Your task to perform on an android device: Search for "logitech g pro" on ebay.com, select the first entry, and add it to the cart. Image 0: 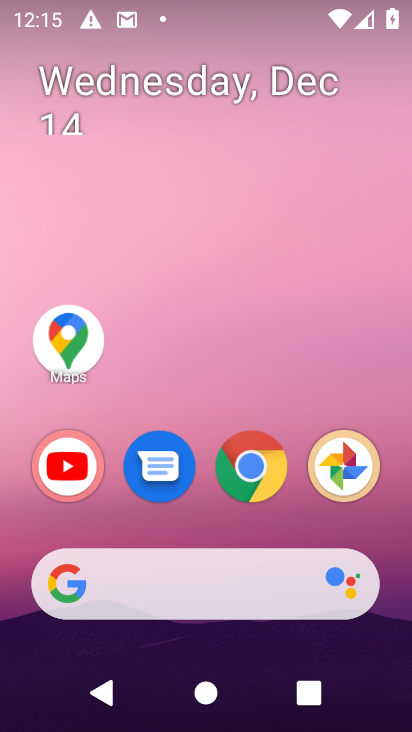
Step 0: click (191, 615)
Your task to perform on an android device: Search for "logitech g pro" on ebay.com, select the first entry, and add it to the cart. Image 1: 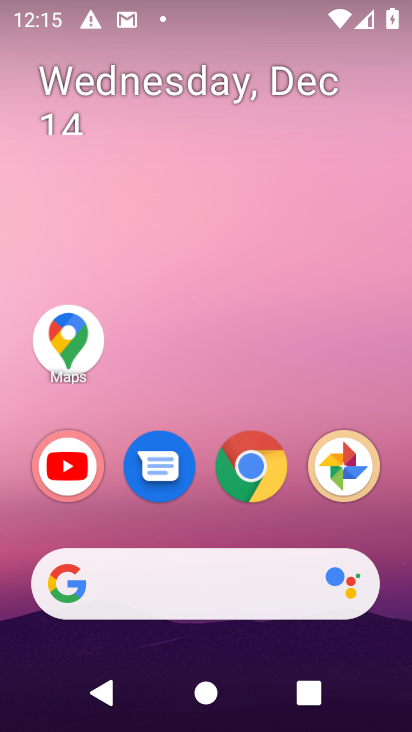
Step 1: click (197, 607)
Your task to perform on an android device: Search for "logitech g pro" on ebay.com, select the first entry, and add it to the cart. Image 2: 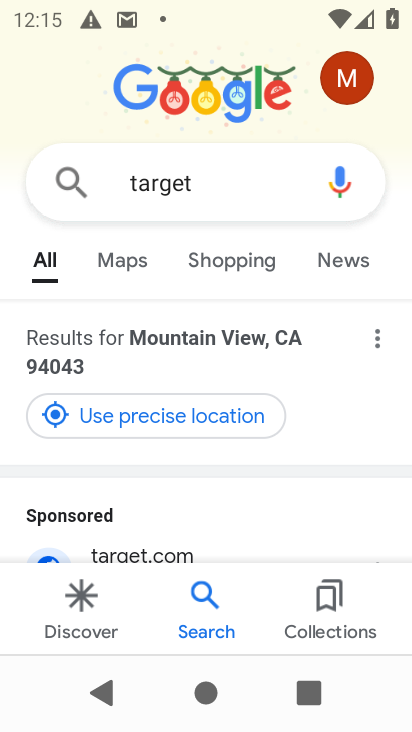
Step 2: click (257, 181)
Your task to perform on an android device: Search for "logitech g pro" on ebay.com, select the first entry, and add it to the cart. Image 3: 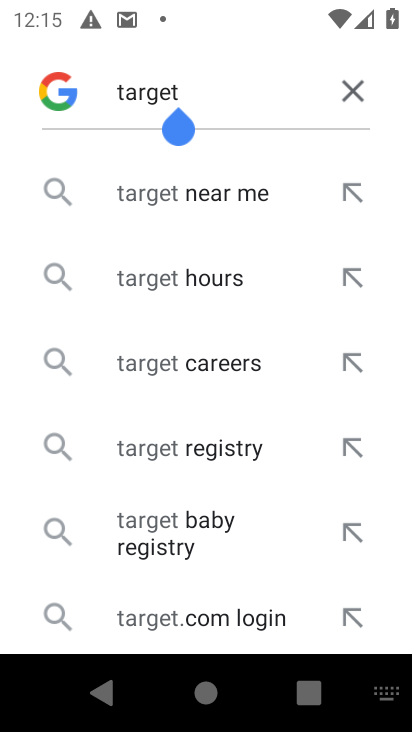
Step 3: click (343, 88)
Your task to perform on an android device: Search for "logitech g pro" on ebay.com, select the first entry, and add it to the cart. Image 4: 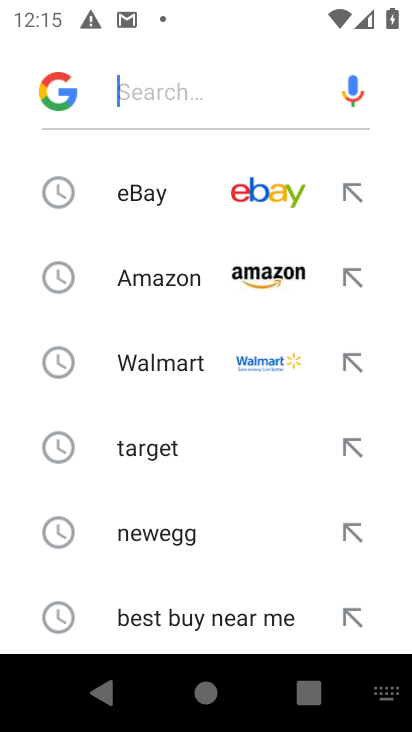
Step 4: type " ebay.com"
Your task to perform on an android device: Search for "logitech g pro" on ebay.com, select the first entry, and add it to the cart. Image 5: 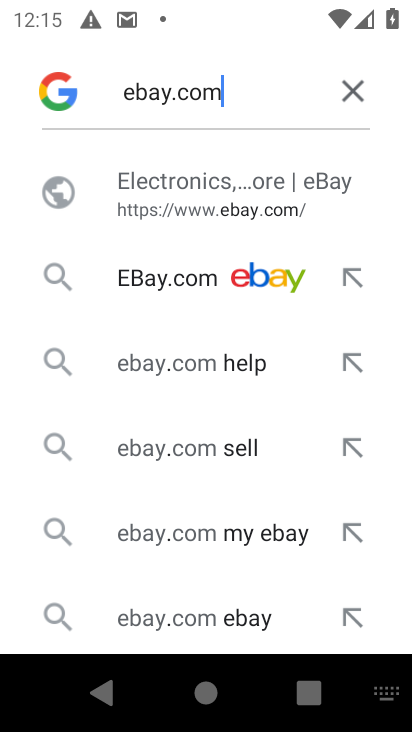
Step 5: click (237, 275)
Your task to perform on an android device: Search for "logitech g pro" on ebay.com, select the first entry, and add it to the cart. Image 6: 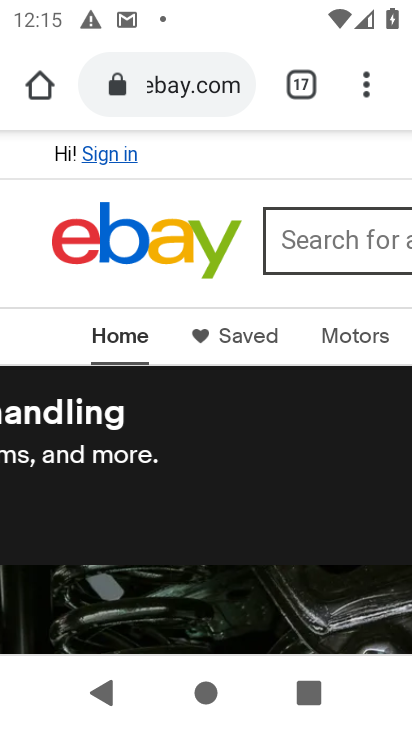
Step 6: drag from (226, 544) to (226, 271)
Your task to perform on an android device: Search for "logitech g pro" on ebay.com, select the first entry, and add it to the cart. Image 7: 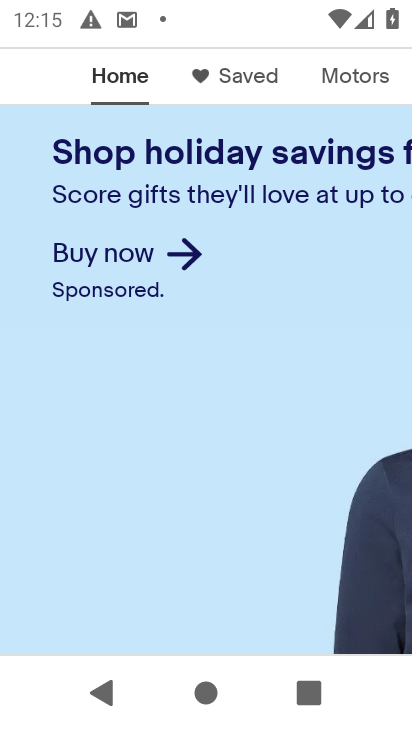
Step 7: drag from (217, 418) to (259, 634)
Your task to perform on an android device: Search for "logitech g pro" on ebay.com, select the first entry, and add it to the cart. Image 8: 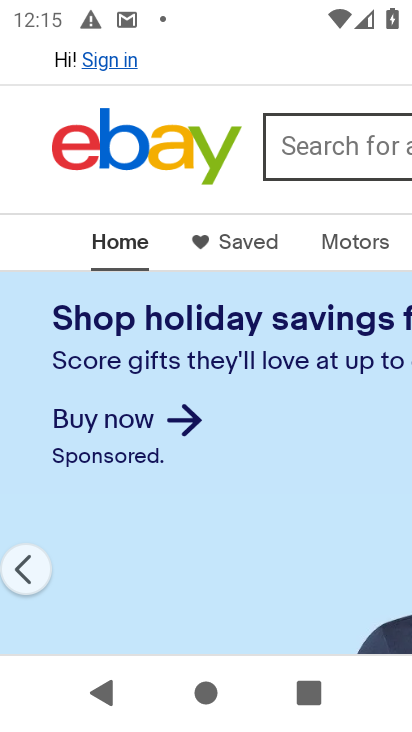
Step 8: click (353, 141)
Your task to perform on an android device: Search for "logitech g pro" on ebay.com, select the first entry, and add it to the cart. Image 9: 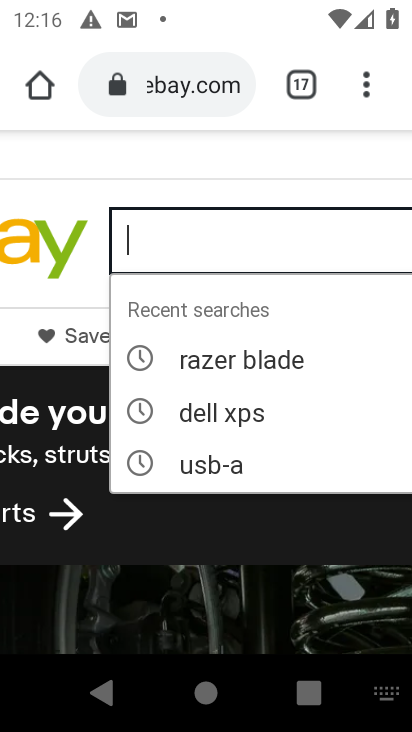
Step 9: click (207, 239)
Your task to perform on an android device: Search for "logitech g pro" on ebay.com, select the first entry, and add it to the cart. Image 10: 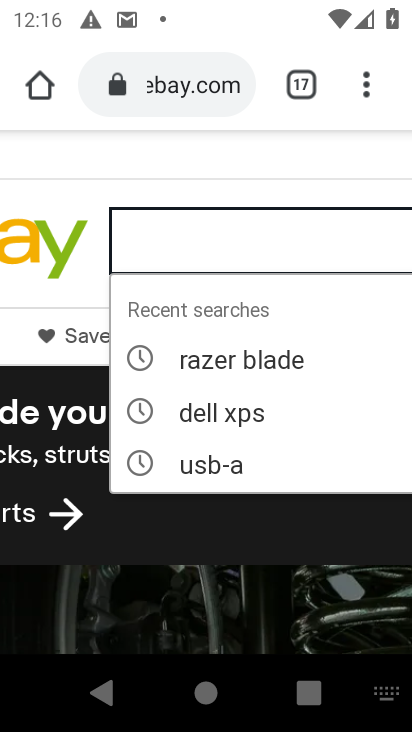
Step 10: click (207, 239)
Your task to perform on an android device: Search for "logitech g pro" on ebay.com, select the first entry, and add it to the cart. Image 11: 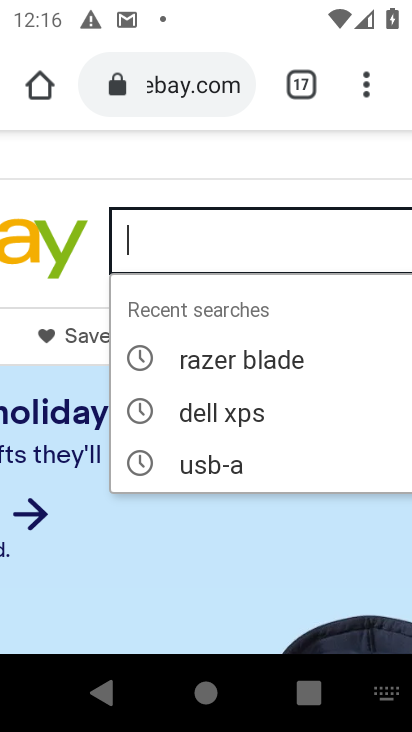
Step 11: type "logitech g pro"
Your task to perform on an android device: Search for "logitech g pro" on ebay.com, select the first entry, and add it to the cart. Image 12: 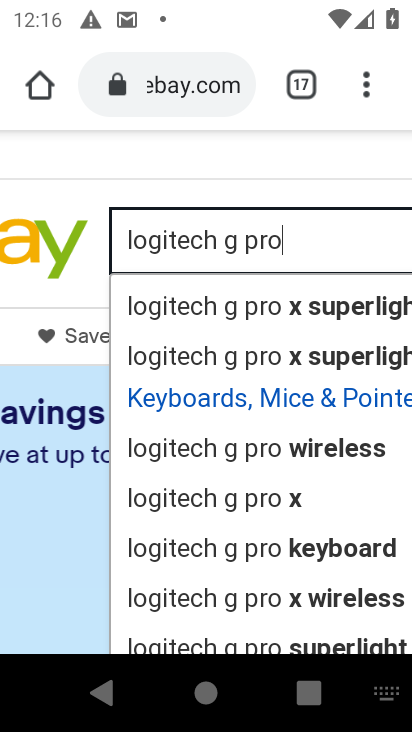
Step 12: drag from (109, 170) to (4, 170)
Your task to perform on an android device: Search for "logitech g pro" on ebay.com, select the first entry, and add it to the cart. Image 13: 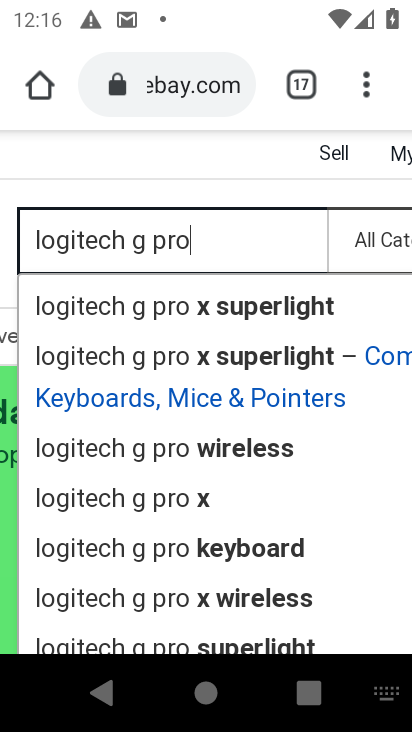
Step 13: drag from (287, 181) to (128, 216)
Your task to perform on an android device: Search for "logitech g pro" on ebay.com, select the first entry, and add it to the cart. Image 14: 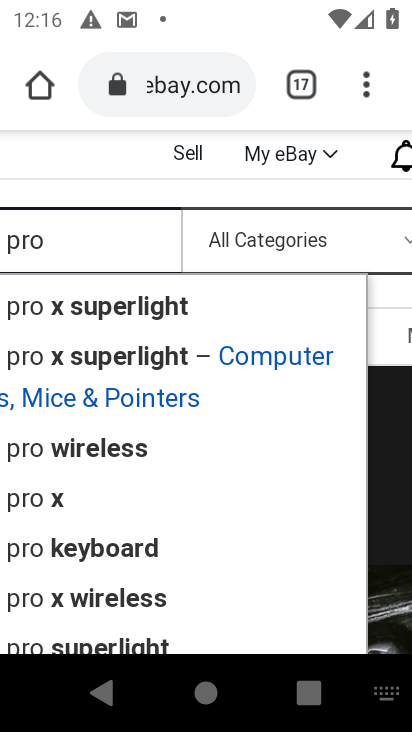
Step 14: drag from (349, 189) to (130, 194)
Your task to perform on an android device: Search for "logitech g pro" on ebay.com, select the first entry, and add it to the cart. Image 15: 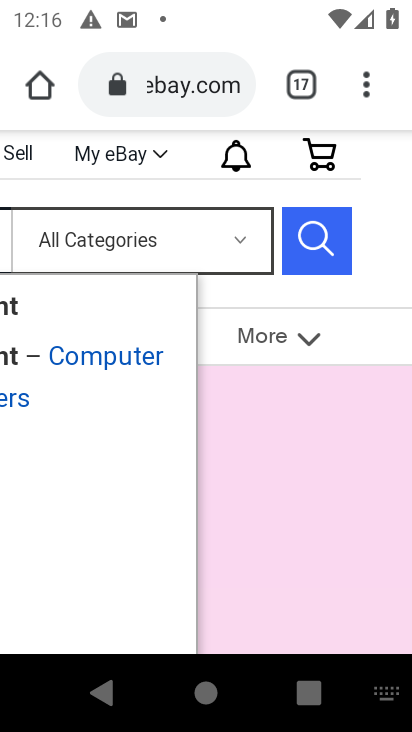
Step 15: click (314, 235)
Your task to perform on an android device: Search for "logitech g pro" on ebay.com, select the first entry, and add it to the cart. Image 16: 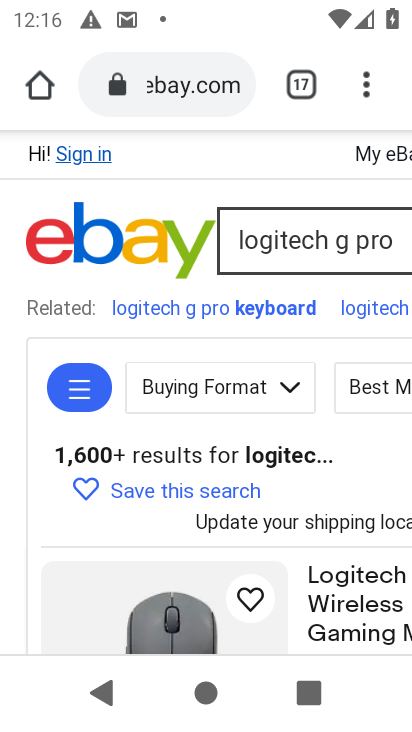
Step 16: drag from (313, 521) to (275, 270)
Your task to perform on an android device: Search for "logitech g pro" on ebay.com, select the first entry, and add it to the cart. Image 17: 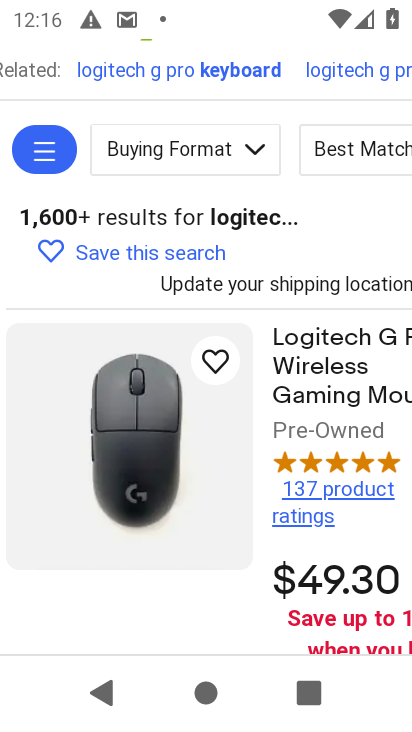
Step 17: drag from (362, 535) to (346, 377)
Your task to perform on an android device: Search for "logitech g pro" on ebay.com, select the first entry, and add it to the cart. Image 18: 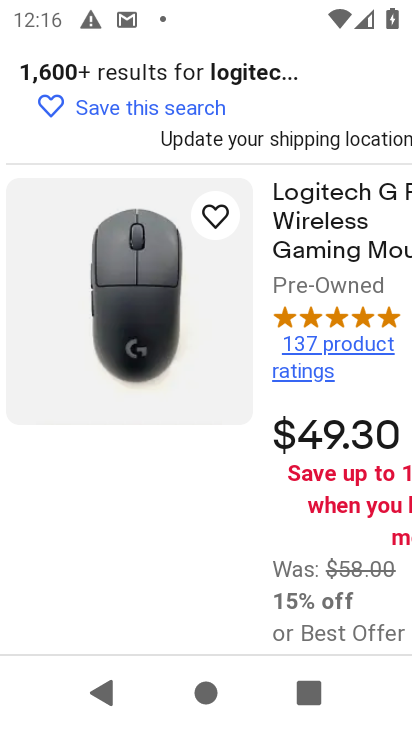
Step 18: drag from (276, 528) to (161, 529)
Your task to perform on an android device: Search for "logitech g pro" on ebay.com, select the first entry, and add it to the cart. Image 19: 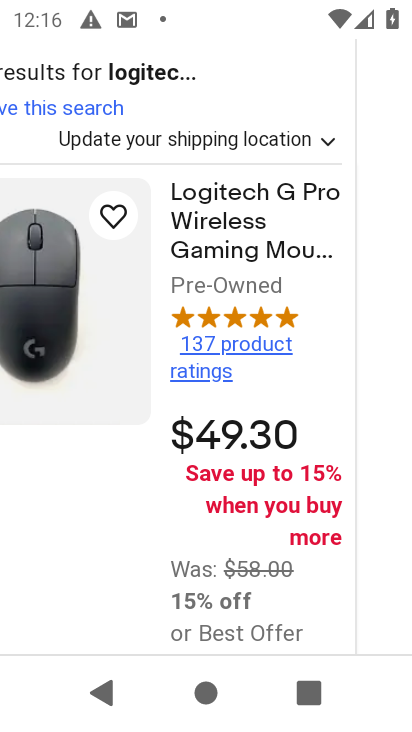
Step 19: drag from (294, 598) to (286, 434)
Your task to perform on an android device: Search for "logitech g pro" on ebay.com, select the first entry, and add it to the cart. Image 20: 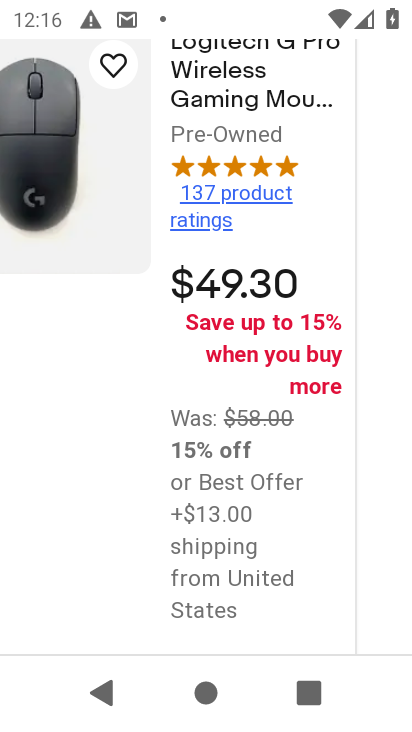
Step 20: drag from (286, 571) to (276, 413)
Your task to perform on an android device: Search for "logitech g pro" on ebay.com, select the first entry, and add it to the cart. Image 21: 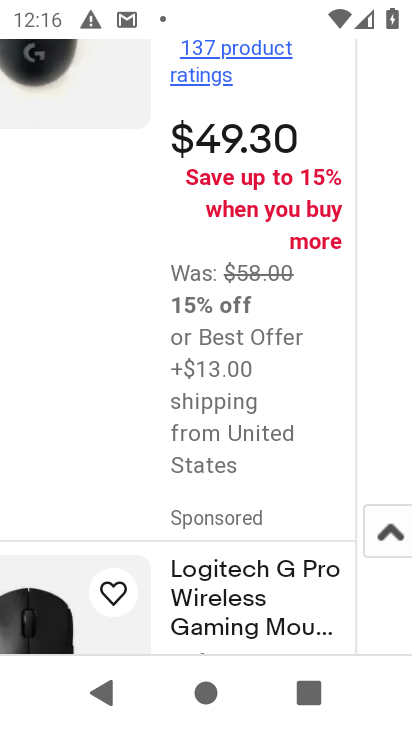
Step 21: click (137, 87)
Your task to perform on an android device: Search for "logitech g pro" on ebay.com, select the first entry, and add it to the cart. Image 22: 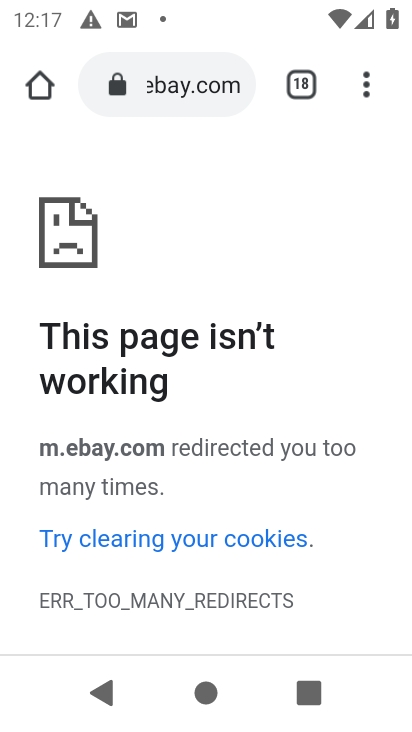
Step 22: task complete